Your task to perform on an android device: Search for Mexican restaurants on Maps Image 0: 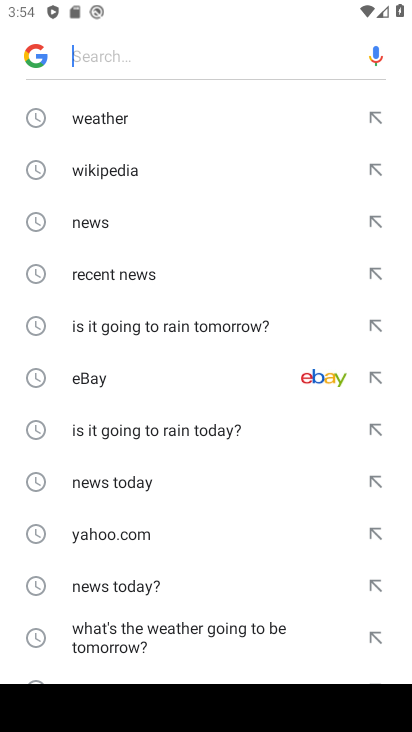
Step 0: press home button
Your task to perform on an android device: Search for Mexican restaurants on Maps Image 1: 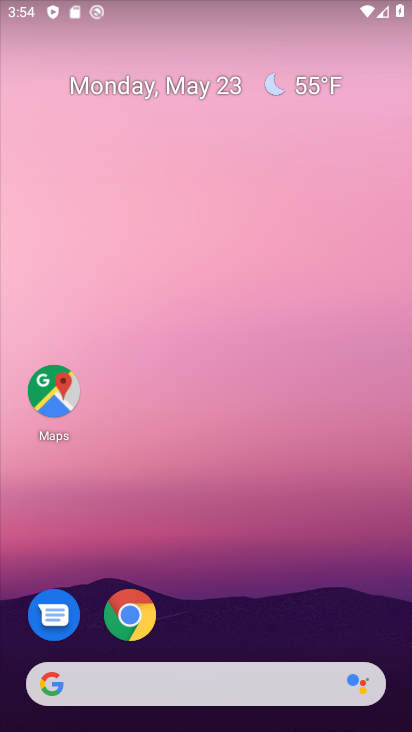
Step 1: drag from (354, 638) to (352, 265)
Your task to perform on an android device: Search for Mexican restaurants on Maps Image 2: 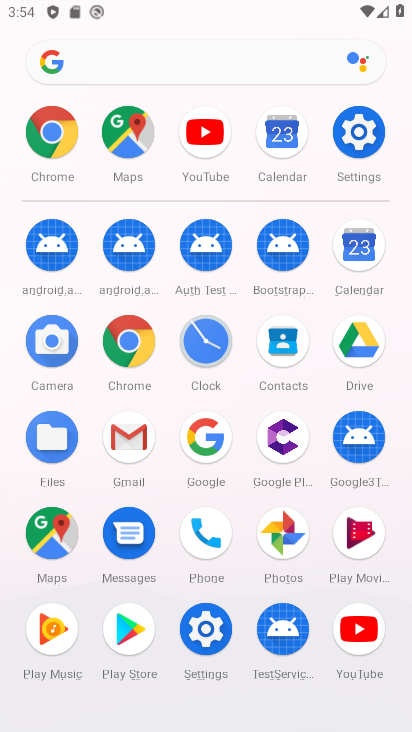
Step 2: click (56, 539)
Your task to perform on an android device: Search for Mexican restaurants on Maps Image 3: 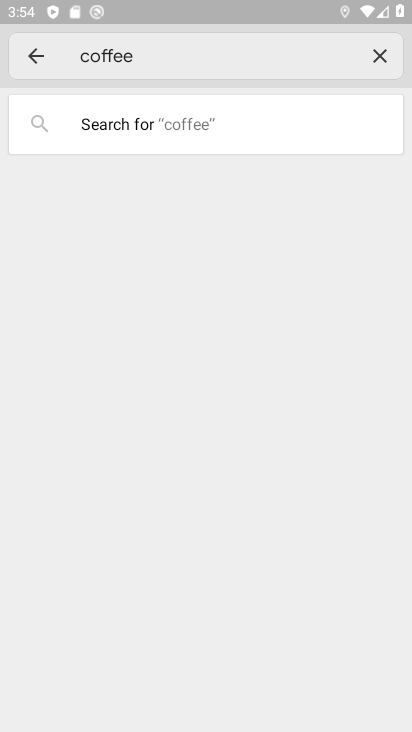
Step 3: click (334, 54)
Your task to perform on an android device: Search for Mexican restaurants on Maps Image 4: 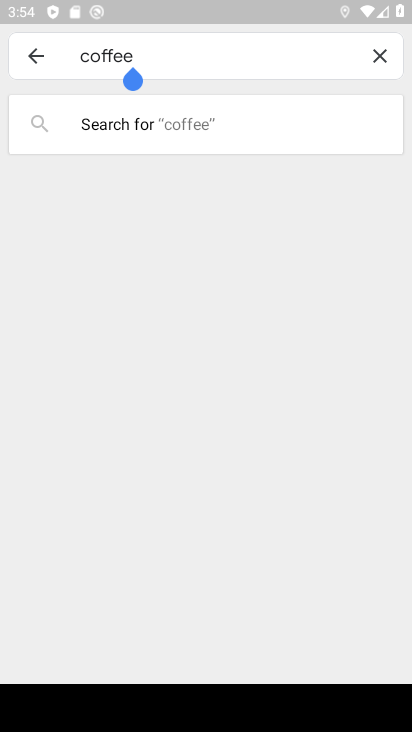
Step 4: click (386, 48)
Your task to perform on an android device: Search for Mexican restaurants on Maps Image 5: 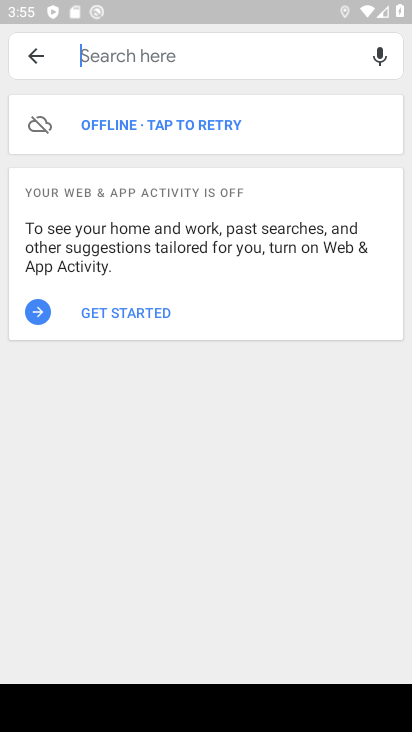
Step 5: type "mexcian rfestaurants"
Your task to perform on an android device: Search for Mexican restaurants on Maps Image 6: 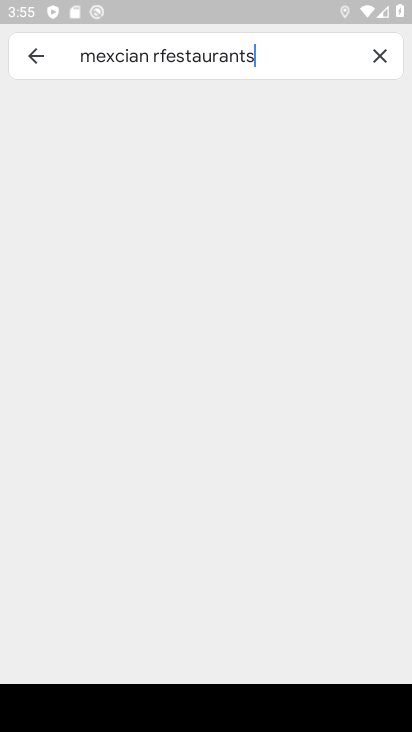
Step 6: task complete